Your task to perform on an android device: turn on javascript in the chrome app Image 0: 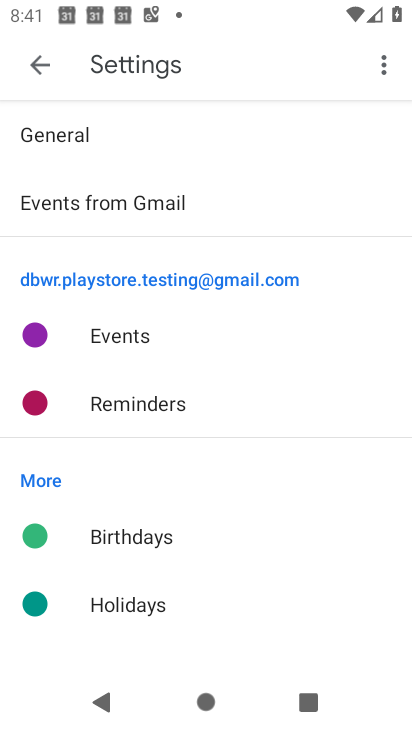
Step 0: press home button
Your task to perform on an android device: turn on javascript in the chrome app Image 1: 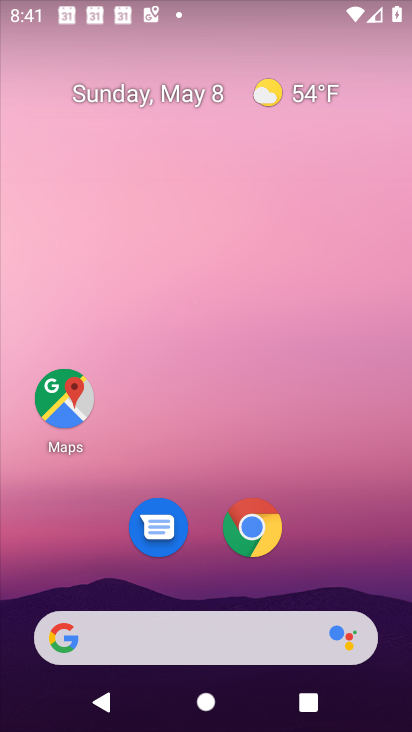
Step 1: click (238, 537)
Your task to perform on an android device: turn on javascript in the chrome app Image 2: 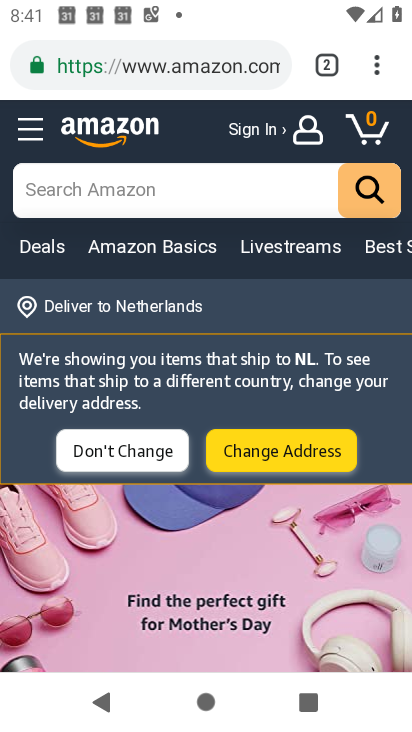
Step 2: click (377, 64)
Your task to perform on an android device: turn on javascript in the chrome app Image 3: 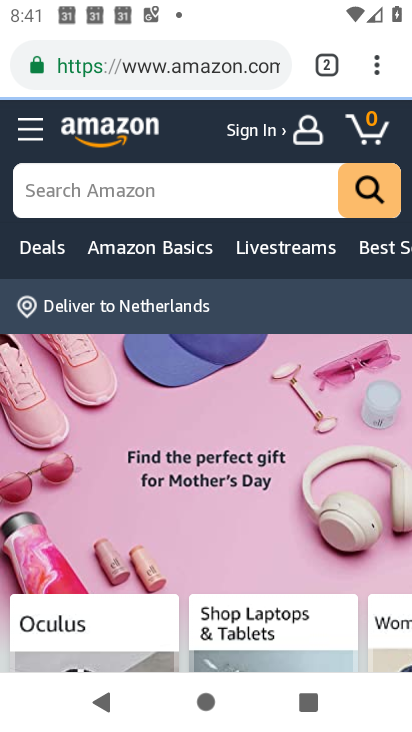
Step 3: click (376, 74)
Your task to perform on an android device: turn on javascript in the chrome app Image 4: 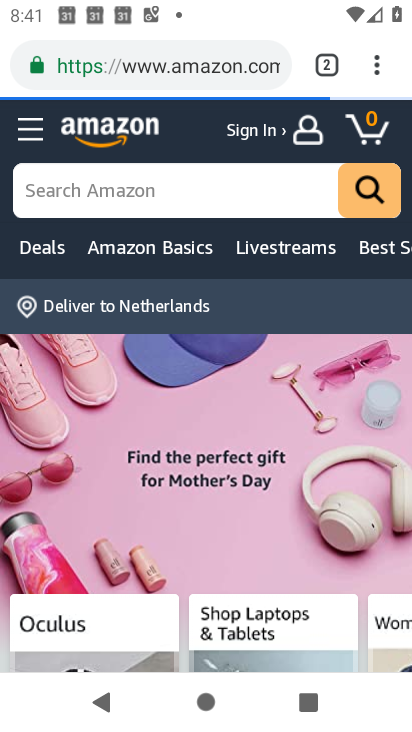
Step 4: click (376, 75)
Your task to perform on an android device: turn on javascript in the chrome app Image 5: 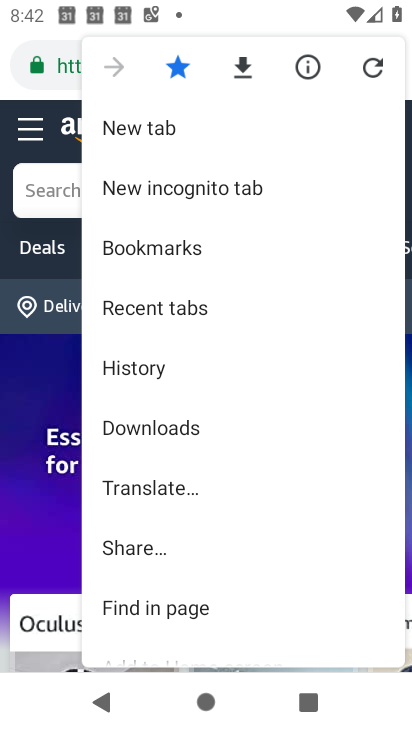
Step 5: drag from (249, 574) to (206, 372)
Your task to perform on an android device: turn on javascript in the chrome app Image 6: 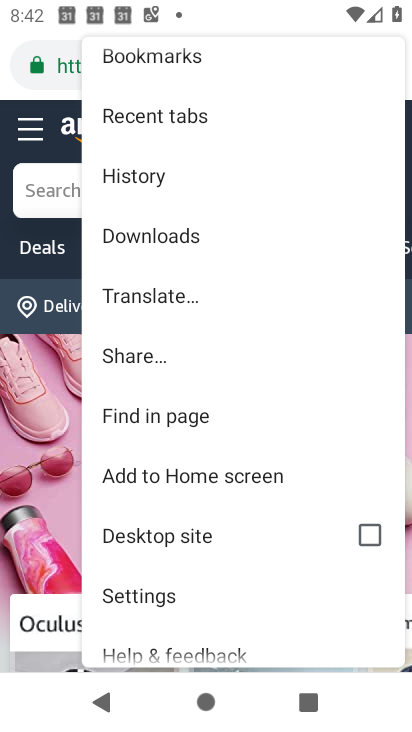
Step 6: click (231, 595)
Your task to perform on an android device: turn on javascript in the chrome app Image 7: 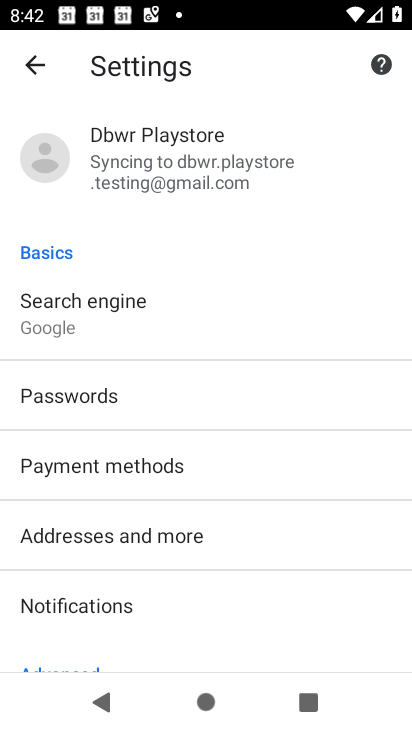
Step 7: drag from (213, 618) to (190, 441)
Your task to perform on an android device: turn on javascript in the chrome app Image 8: 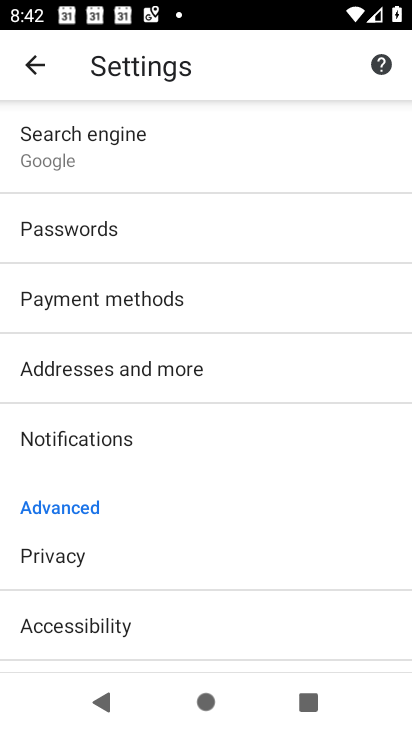
Step 8: drag from (131, 624) to (117, 456)
Your task to perform on an android device: turn on javascript in the chrome app Image 9: 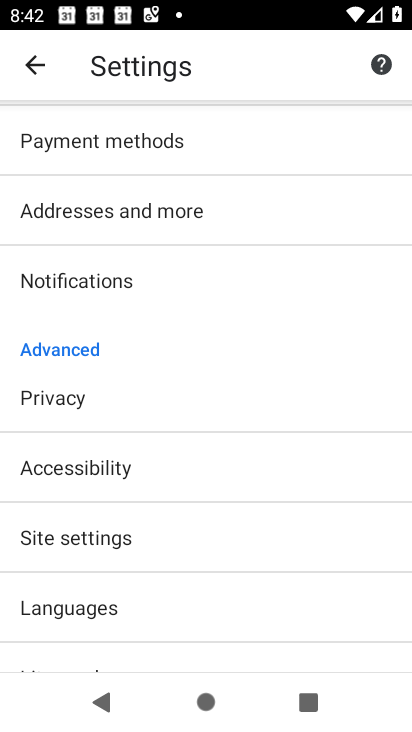
Step 9: click (148, 534)
Your task to perform on an android device: turn on javascript in the chrome app Image 10: 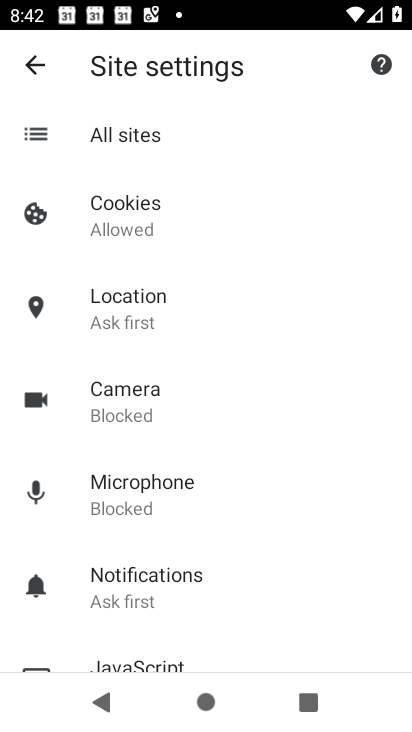
Step 10: drag from (171, 603) to (150, 462)
Your task to perform on an android device: turn on javascript in the chrome app Image 11: 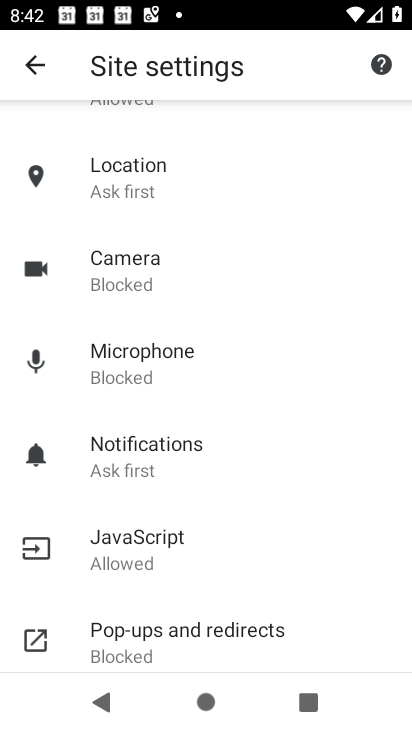
Step 11: click (135, 539)
Your task to perform on an android device: turn on javascript in the chrome app Image 12: 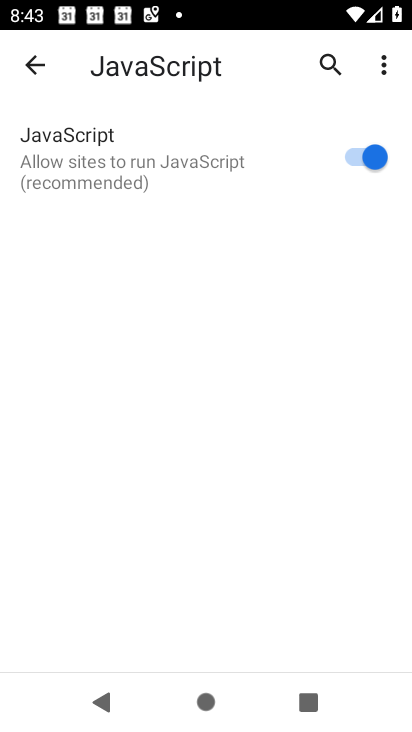
Step 12: task complete